Your task to perform on an android device: move an email to a new category in the gmail app Image 0: 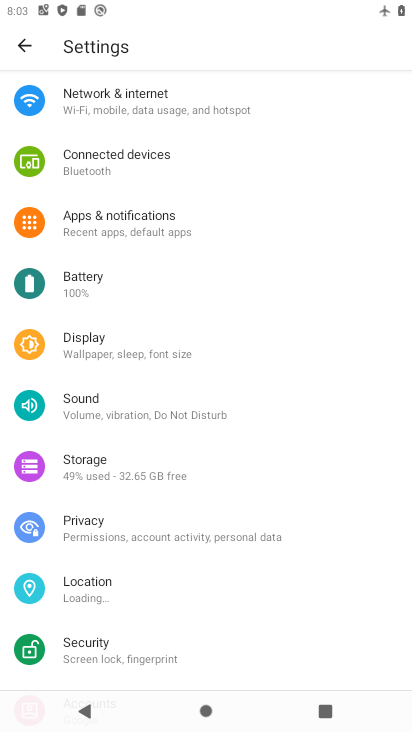
Step 0: press home button
Your task to perform on an android device: move an email to a new category in the gmail app Image 1: 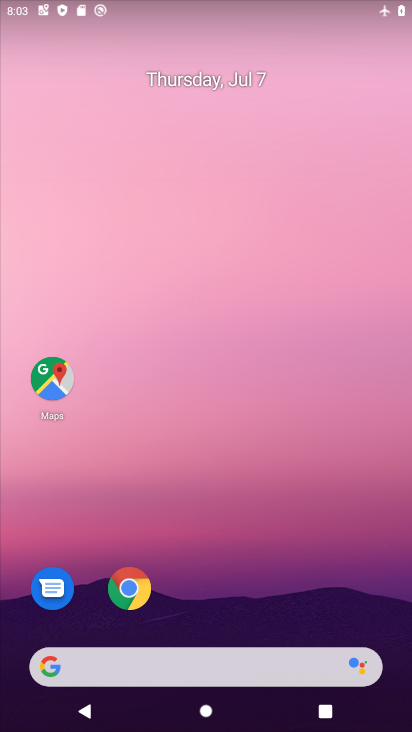
Step 1: drag from (253, 571) to (302, 132)
Your task to perform on an android device: move an email to a new category in the gmail app Image 2: 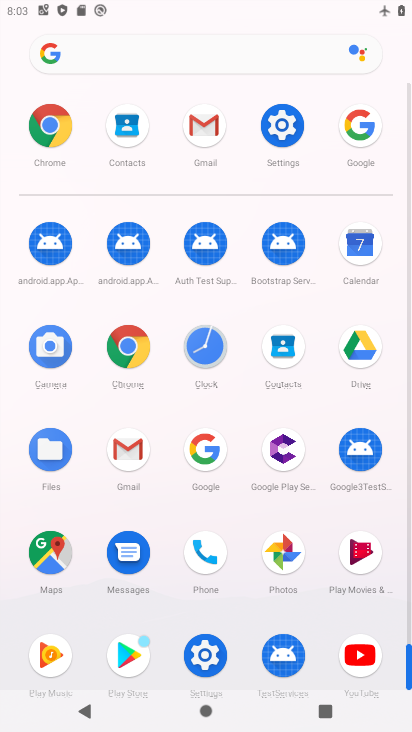
Step 2: click (207, 122)
Your task to perform on an android device: move an email to a new category in the gmail app Image 3: 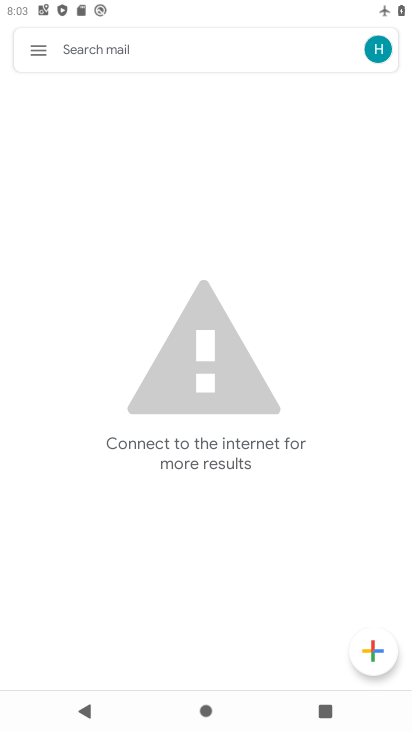
Step 3: task complete